Your task to perform on an android device: toggle show notifications on the lock screen Image 0: 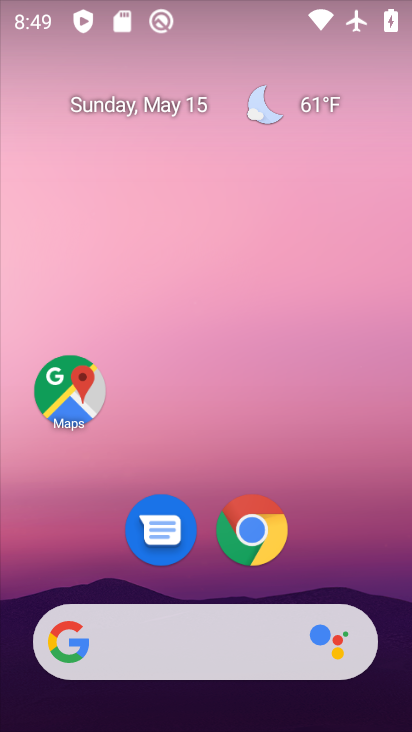
Step 0: drag from (209, 723) to (229, 213)
Your task to perform on an android device: toggle show notifications on the lock screen Image 1: 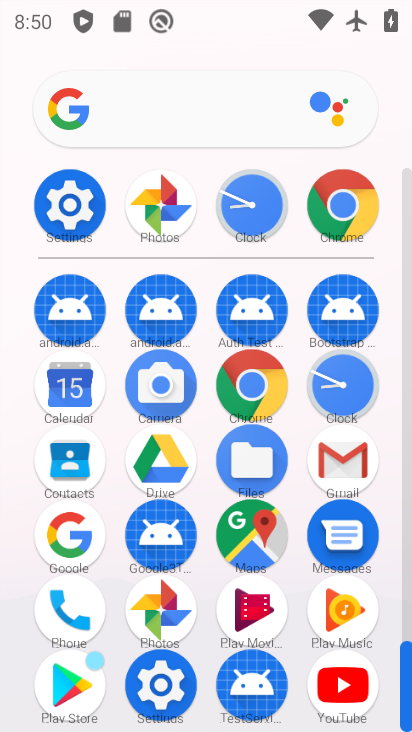
Step 1: click (64, 211)
Your task to perform on an android device: toggle show notifications on the lock screen Image 2: 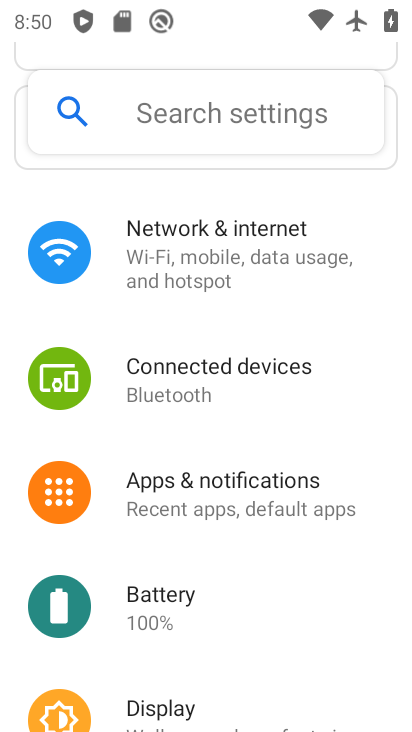
Step 2: click (247, 492)
Your task to perform on an android device: toggle show notifications on the lock screen Image 3: 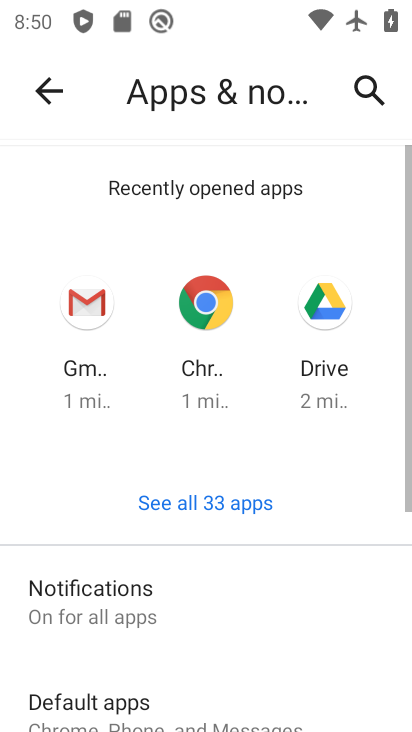
Step 3: drag from (229, 682) to (245, 440)
Your task to perform on an android device: toggle show notifications on the lock screen Image 4: 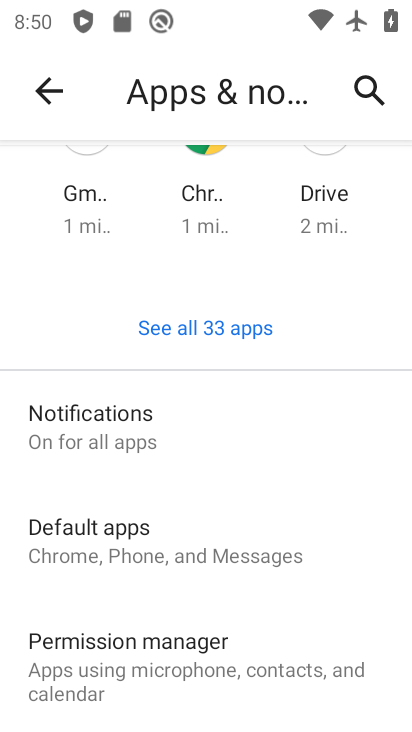
Step 4: click (93, 425)
Your task to perform on an android device: toggle show notifications on the lock screen Image 5: 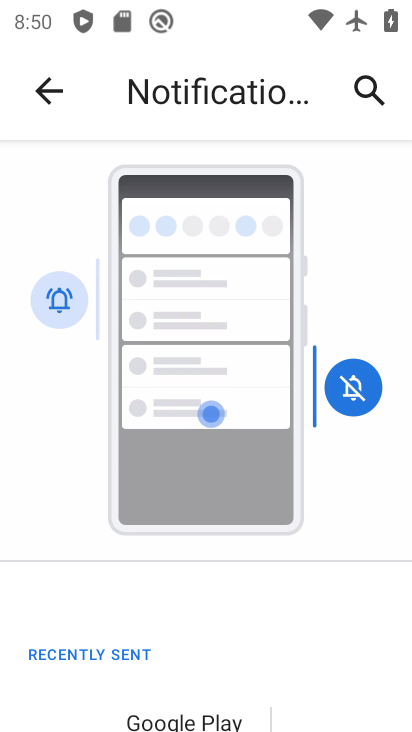
Step 5: drag from (231, 675) to (231, 371)
Your task to perform on an android device: toggle show notifications on the lock screen Image 6: 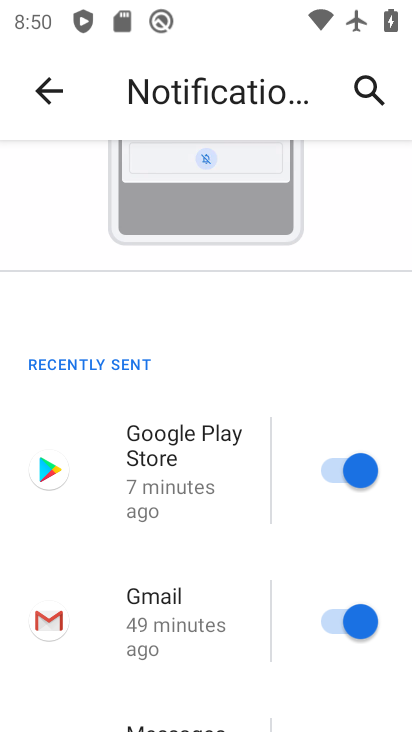
Step 6: drag from (214, 690) to (220, 297)
Your task to perform on an android device: toggle show notifications on the lock screen Image 7: 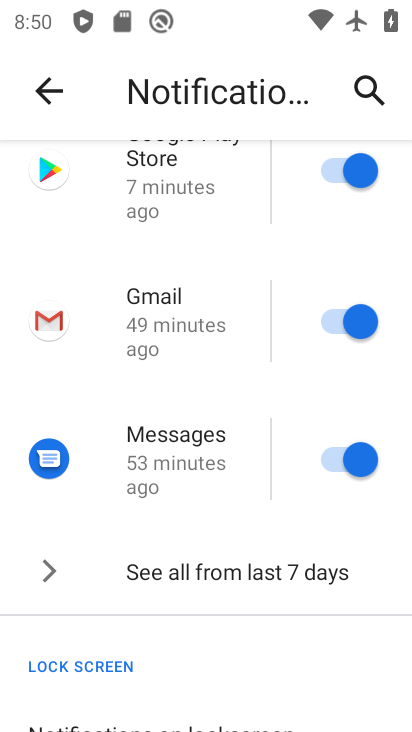
Step 7: drag from (208, 710) to (222, 286)
Your task to perform on an android device: toggle show notifications on the lock screen Image 8: 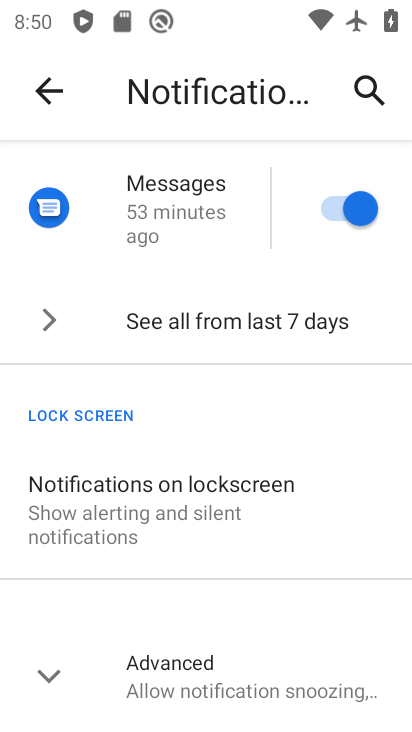
Step 8: click (130, 485)
Your task to perform on an android device: toggle show notifications on the lock screen Image 9: 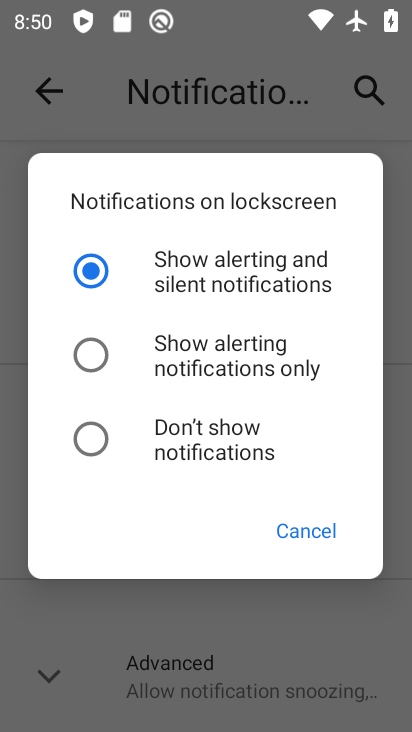
Step 9: click (91, 349)
Your task to perform on an android device: toggle show notifications on the lock screen Image 10: 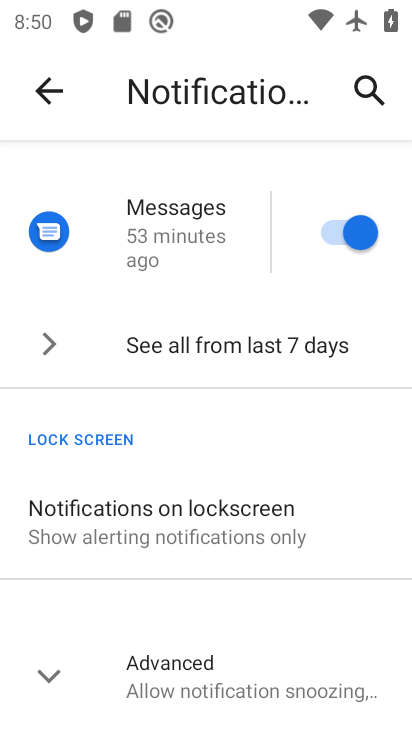
Step 10: task complete